Your task to perform on an android device: turn off improve location accuracy Image 0: 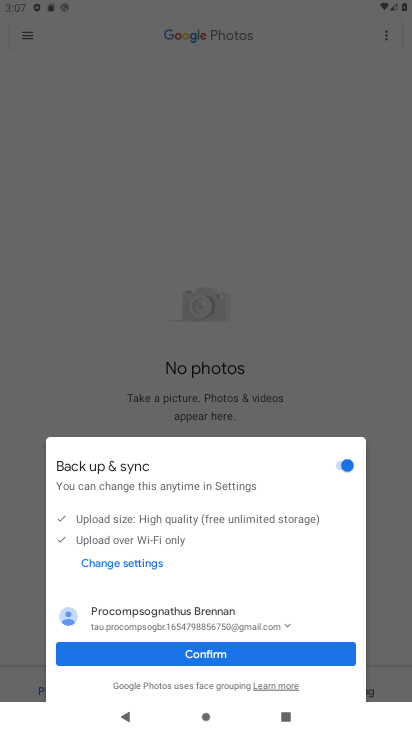
Step 0: press home button
Your task to perform on an android device: turn off improve location accuracy Image 1: 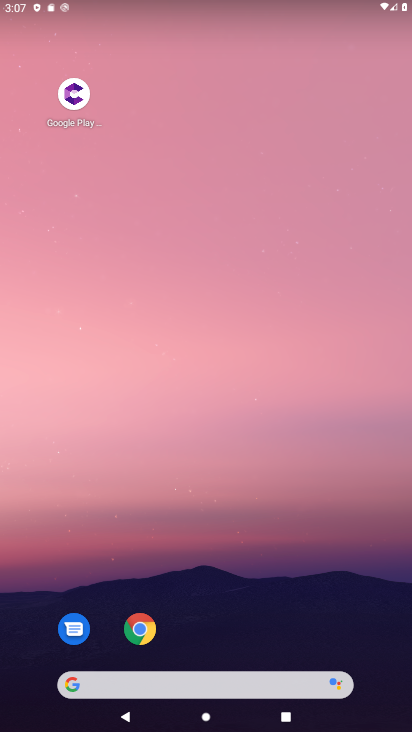
Step 1: drag from (208, 478) to (208, 273)
Your task to perform on an android device: turn off improve location accuracy Image 2: 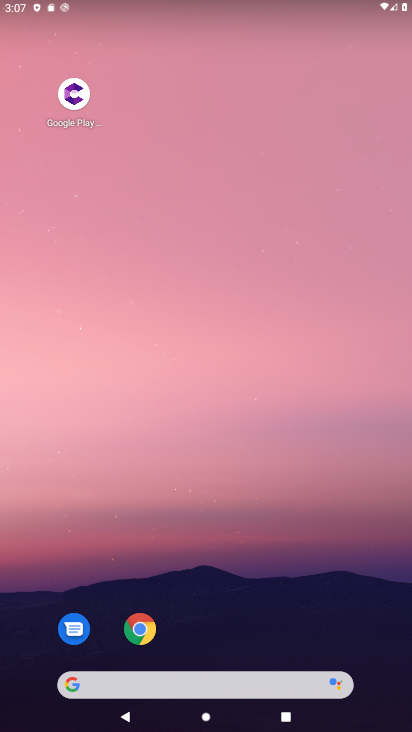
Step 2: drag from (228, 501) to (255, 40)
Your task to perform on an android device: turn off improve location accuracy Image 3: 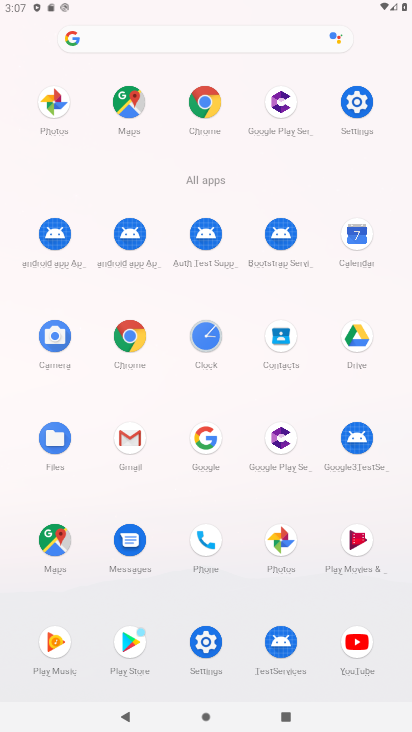
Step 3: click (352, 118)
Your task to perform on an android device: turn off improve location accuracy Image 4: 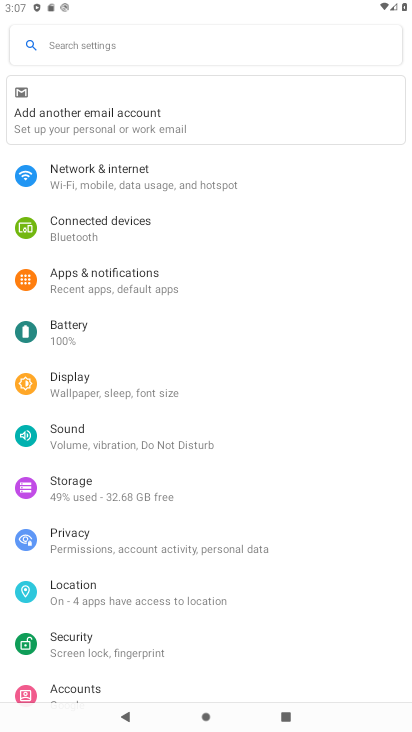
Step 4: click (73, 590)
Your task to perform on an android device: turn off improve location accuracy Image 5: 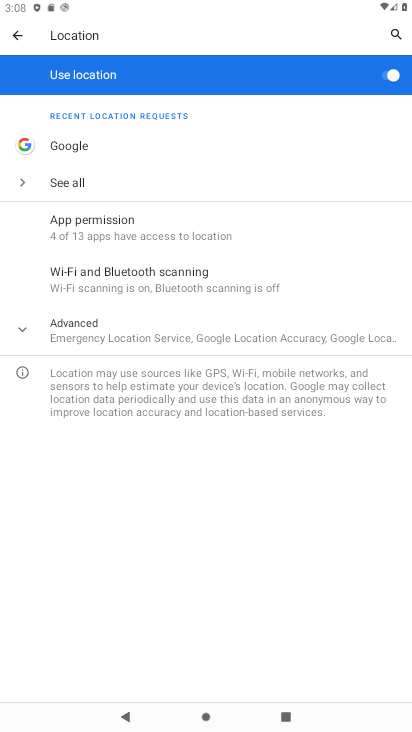
Step 5: click (94, 332)
Your task to perform on an android device: turn off improve location accuracy Image 6: 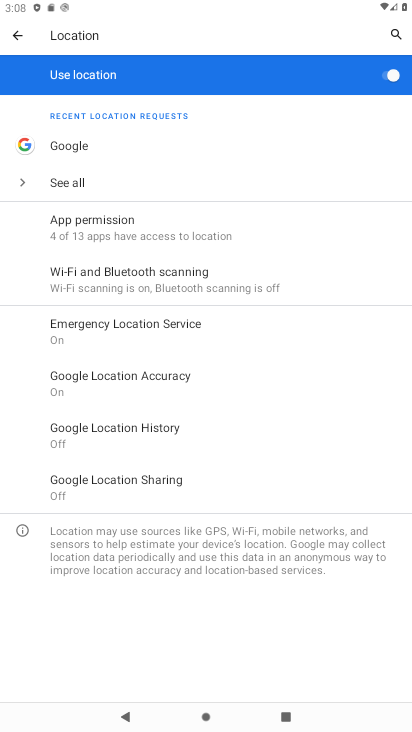
Step 6: click (136, 378)
Your task to perform on an android device: turn off improve location accuracy Image 7: 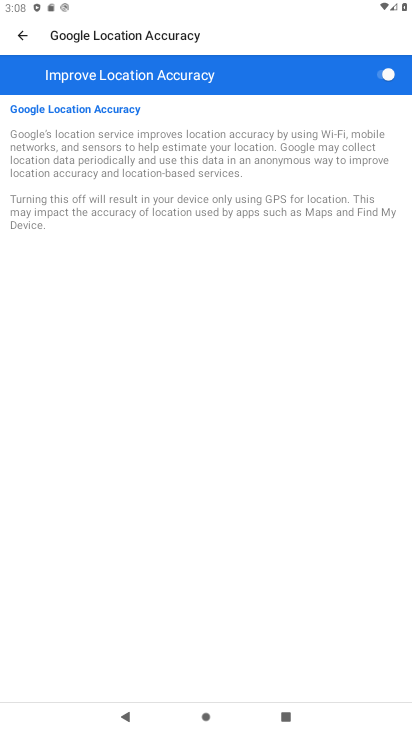
Step 7: click (376, 76)
Your task to perform on an android device: turn off improve location accuracy Image 8: 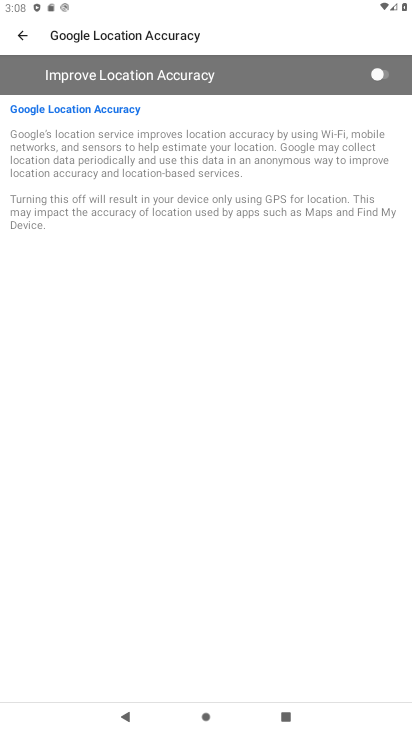
Step 8: task complete